Your task to perform on an android device: turn on translation in the chrome app Image 0: 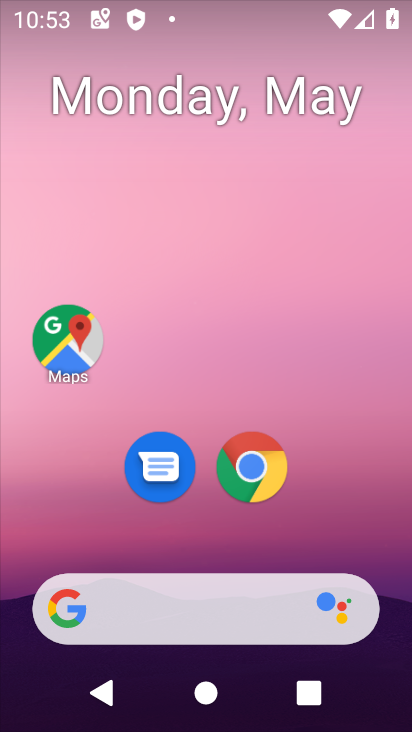
Step 0: click (249, 466)
Your task to perform on an android device: turn on translation in the chrome app Image 1: 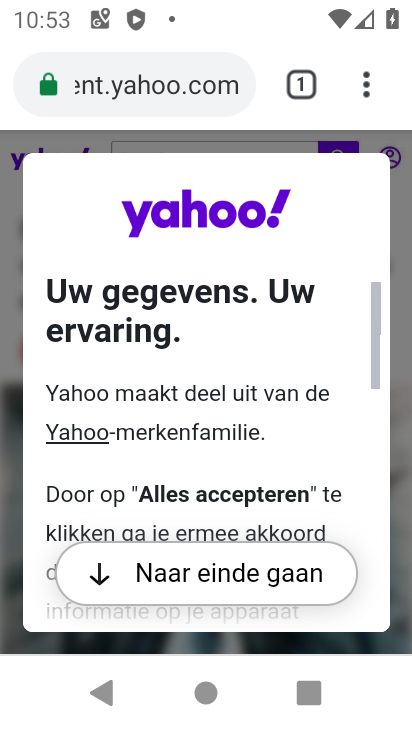
Step 1: click (366, 97)
Your task to perform on an android device: turn on translation in the chrome app Image 2: 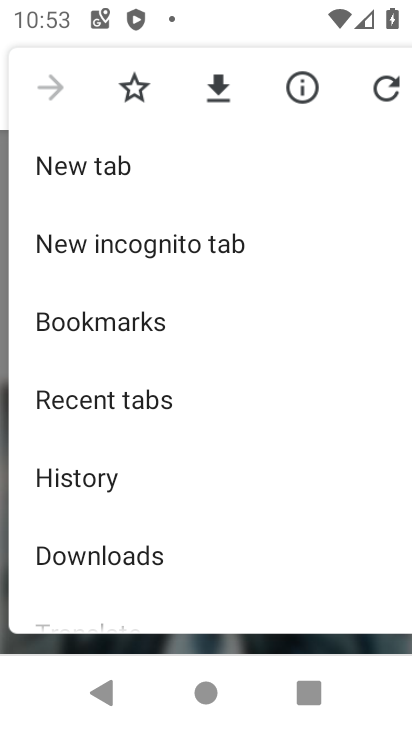
Step 2: drag from (233, 575) to (213, 232)
Your task to perform on an android device: turn on translation in the chrome app Image 3: 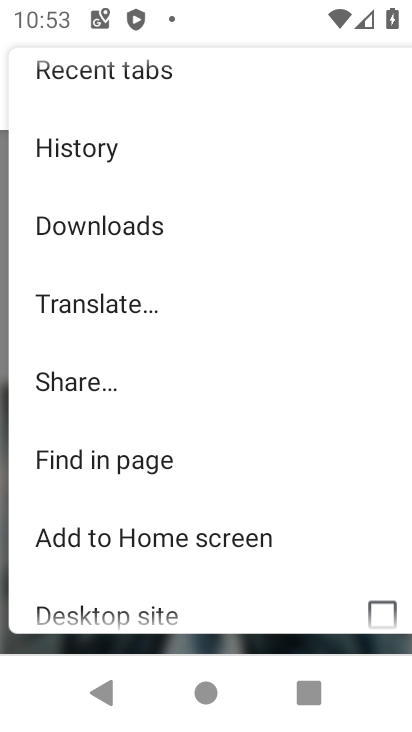
Step 3: drag from (272, 553) to (219, 233)
Your task to perform on an android device: turn on translation in the chrome app Image 4: 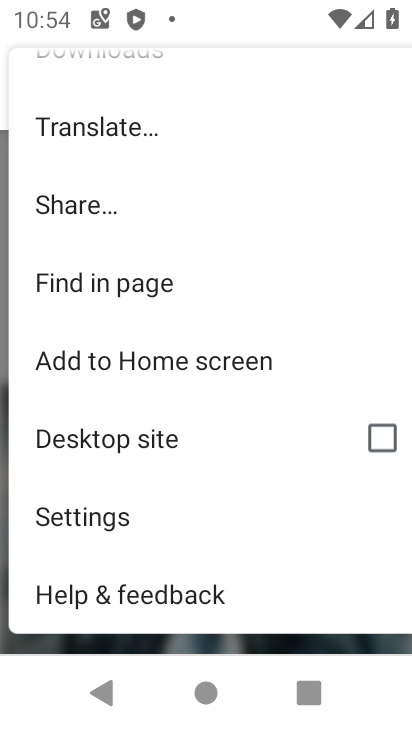
Step 4: click (69, 529)
Your task to perform on an android device: turn on translation in the chrome app Image 5: 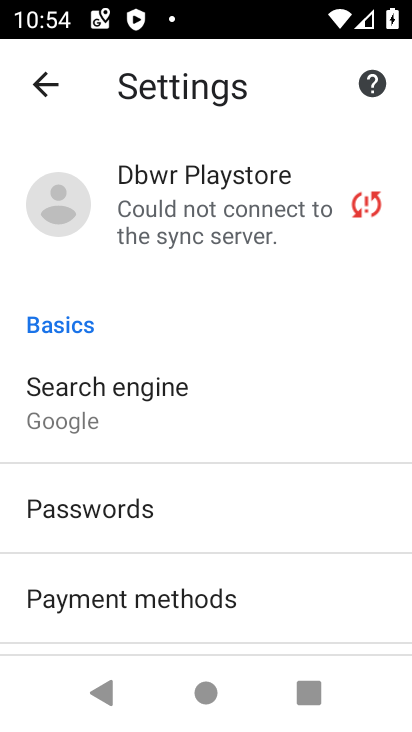
Step 5: drag from (283, 594) to (230, 212)
Your task to perform on an android device: turn on translation in the chrome app Image 6: 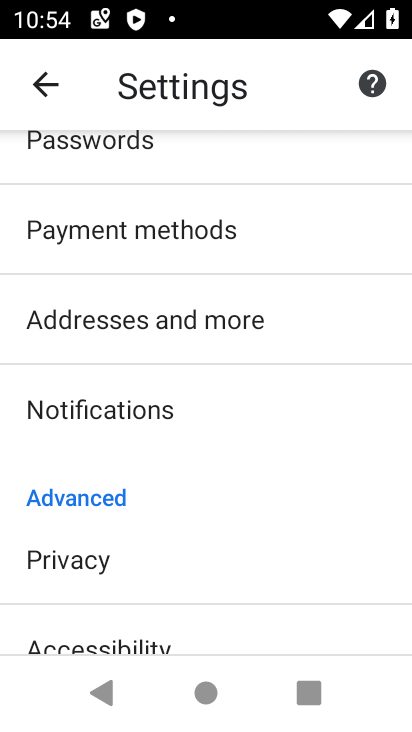
Step 6: drag from (209, 632) to (285, 248)
Your task to perform on an android device: turn on translation in the chrome app Image 7: 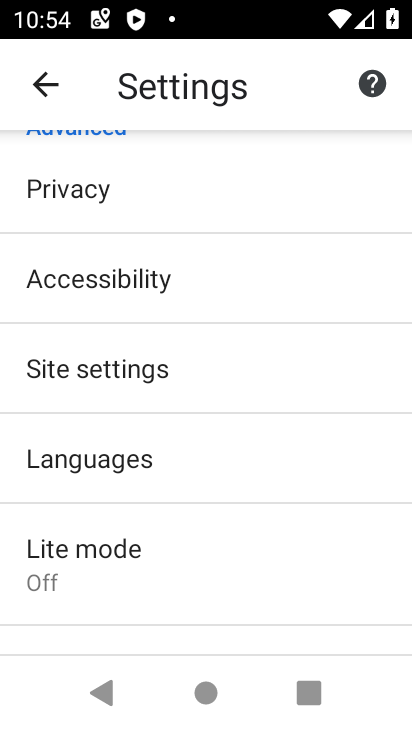
Step 7: click (97, 464)
Your task to perform on an android device: turn on translation in the chrome app Image 8: 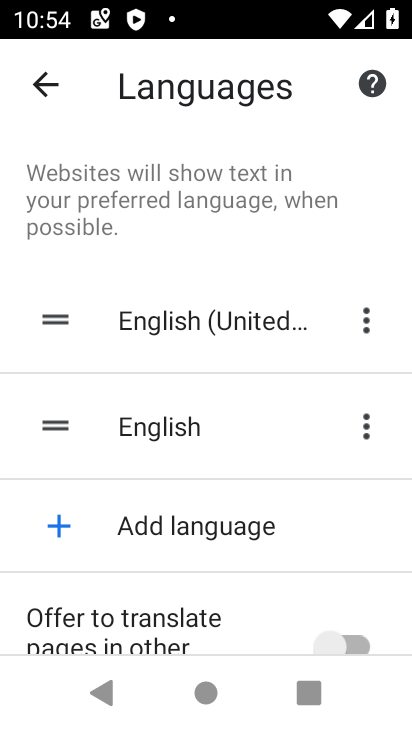
Step 8: click (362, 640)
Your task to perform on an android device: turn on translation in the chrome app Image 9: 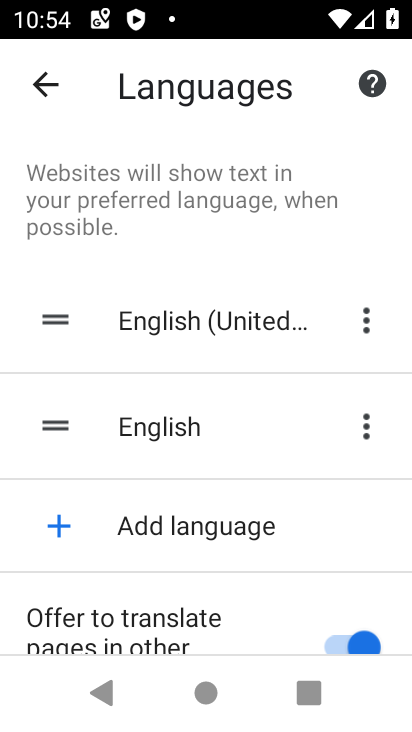
Step 9: task complete